Your task to perform on an android device: Open the map Image 0: 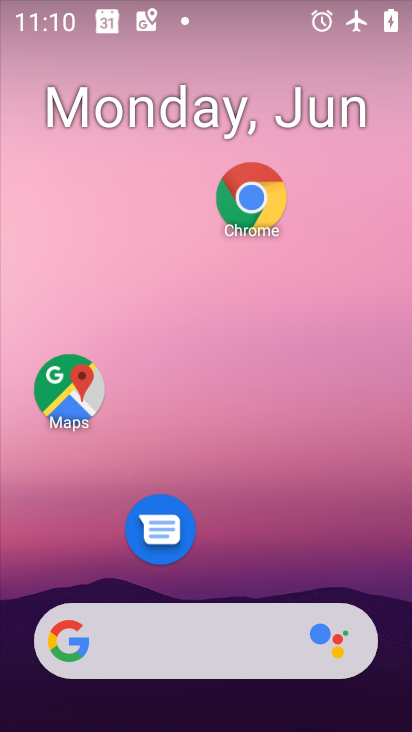
Step 0: click (75, 391)
Your task to perform on an android device: Open the map Image 1: 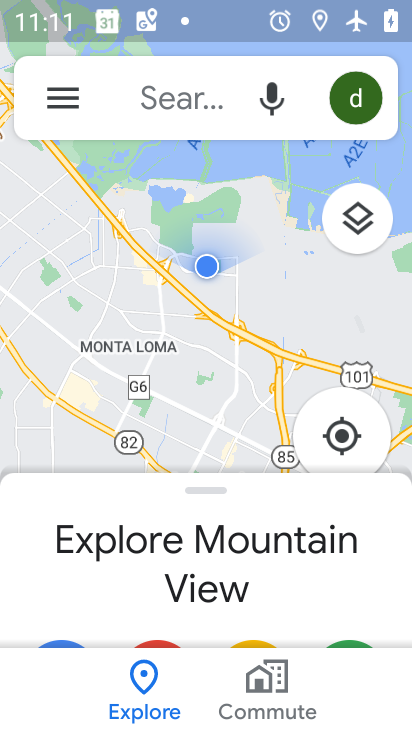
Step 1: task complete